Your task to perform on an android device: Open the phone app and click the voicemail tab. Image 0: 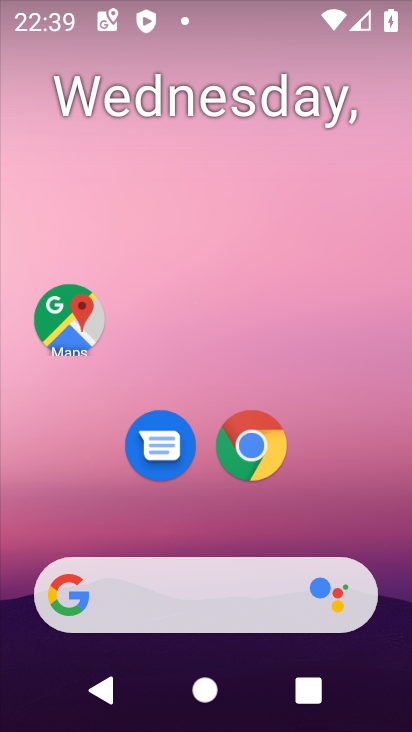
Step 0: drag from (329, 526) to (307, 313)
Your task to perform on an android device: Open the phone app and click the voicemail tab. Image 1: 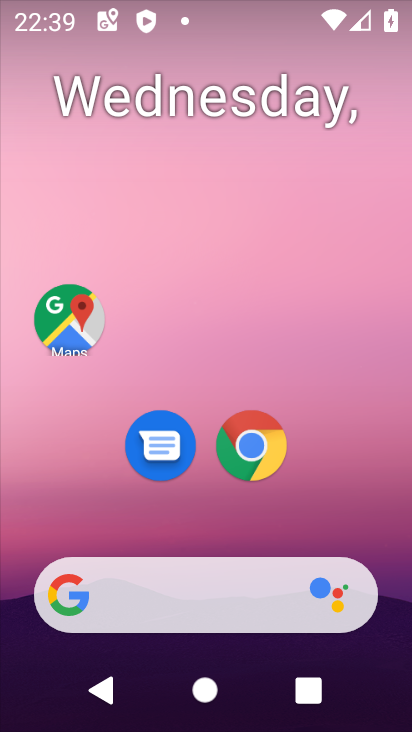
Step 1: drag from (226, 457) to (286, 113)
Your task to perform on an android device: Open the phone app and click the voicemail tab. Image 2: 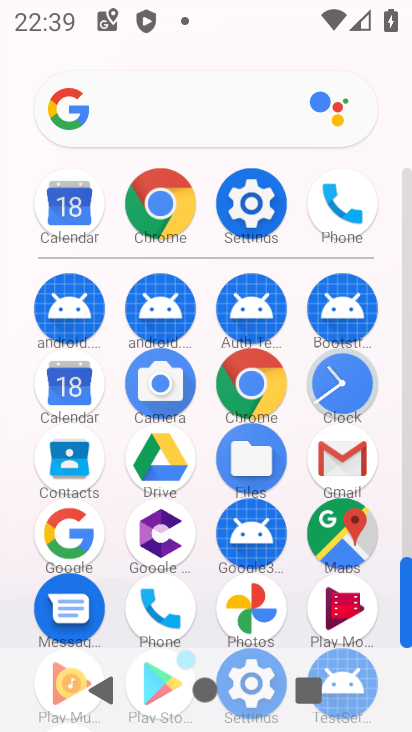
Step 2: click (322, 202)
Your task to perform on an android device: Open the phone app and click the voicemail tab. Image 3: 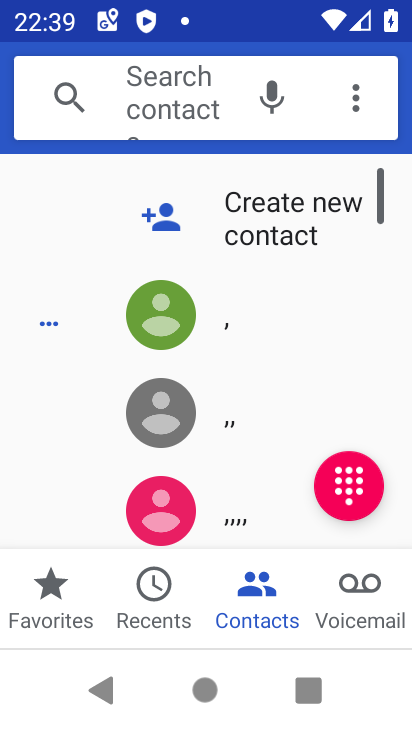
Step 3: click (339, 585)
Your task to perform on an android device: Open the phone app and click the voicemail tab. Image 4: 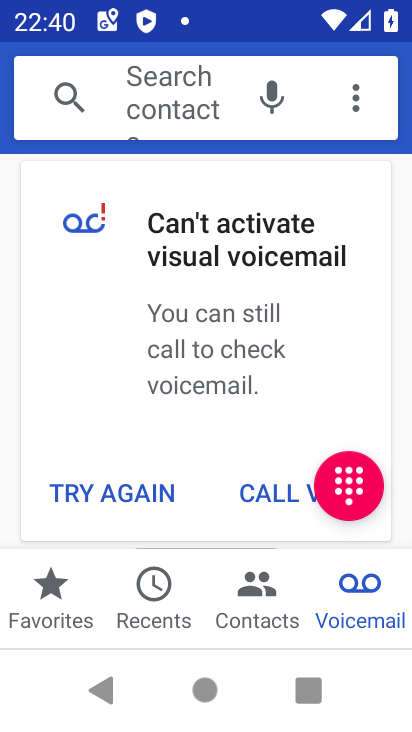
Step 4: task complete